Your task to perform on an android device: change keyboard looks Image 0: 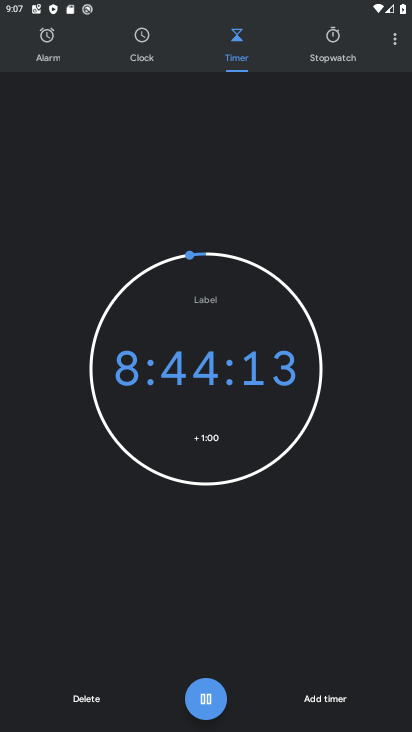
Step 0: press home button
Your task to perform on an android device: change keyboard looks Image 1: 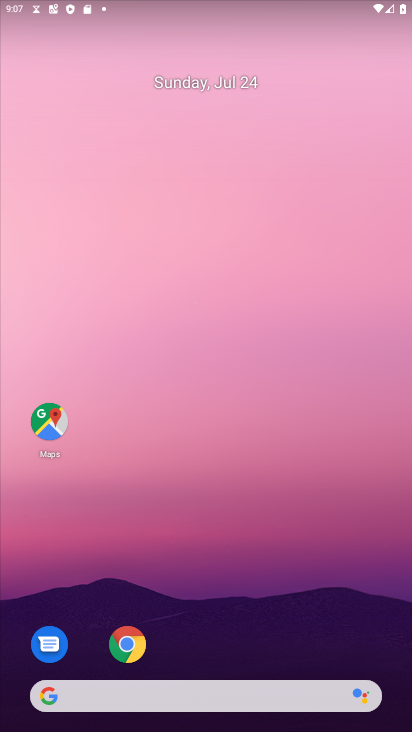
Step 1: drag from (222, 609) to (295, 80)
Your task to perform on an android device: change keyboard looks Image 2: 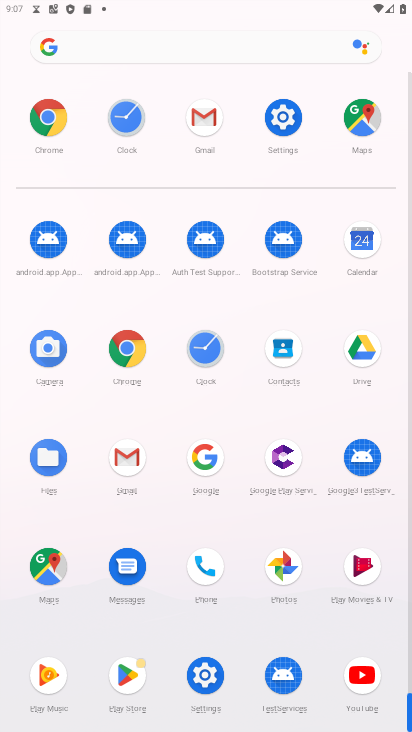
Step 2: click (284, 111)
Your task to perform on an android device: change keyboard looks Image 3: 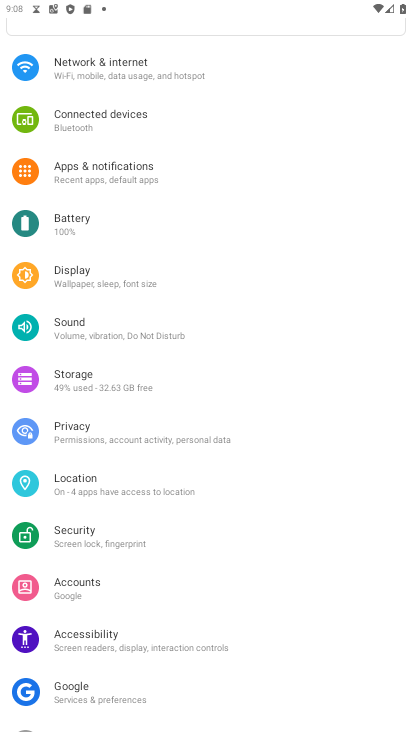
Step 3: drag from (174, 689) to (213, 71)
Your task to perform on an android device: change keyboard looks Image 4: 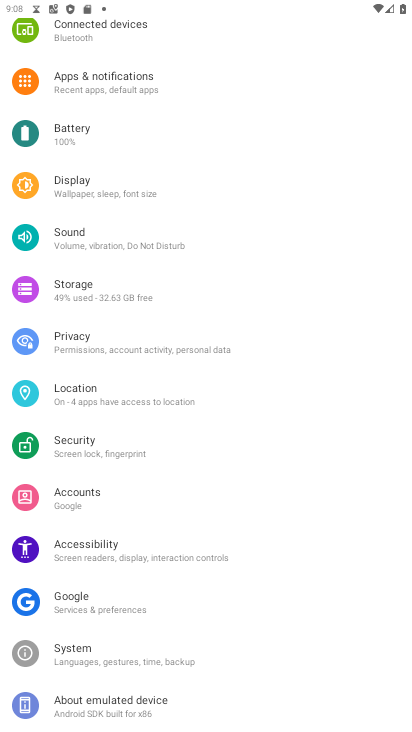
Step 4: click (56, 652)
Your task to perform on an android device: change keyboard looks Image 5: 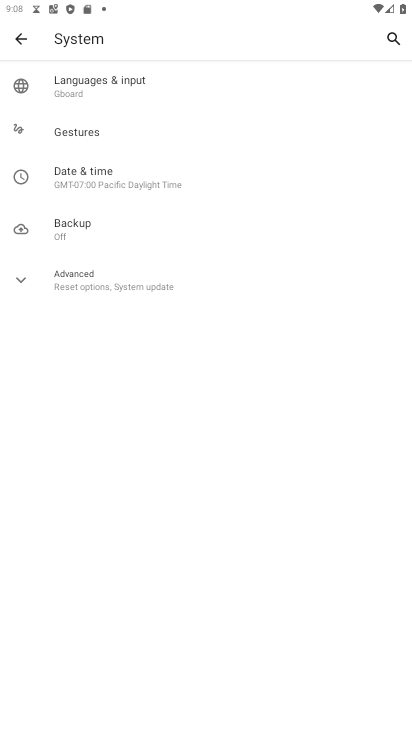
Step 5: click (74, 88)
Your task to perform on an android device: change keyboard looks Image 6: 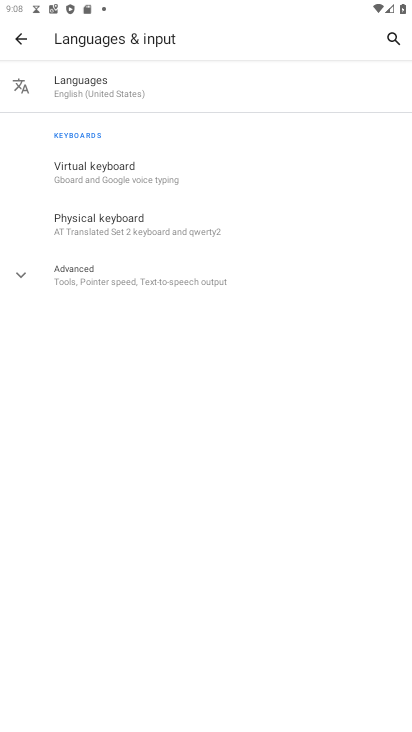
Step 6: click (124, 276)
Your task to perform on an android device: change keyboard looks Image 7: 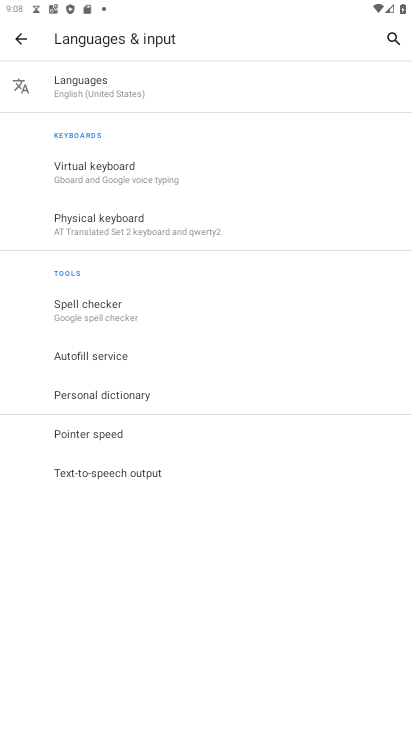
Step 7: click (92, 182)
Your task to perform on an android device: change keyboard looks Image 8: 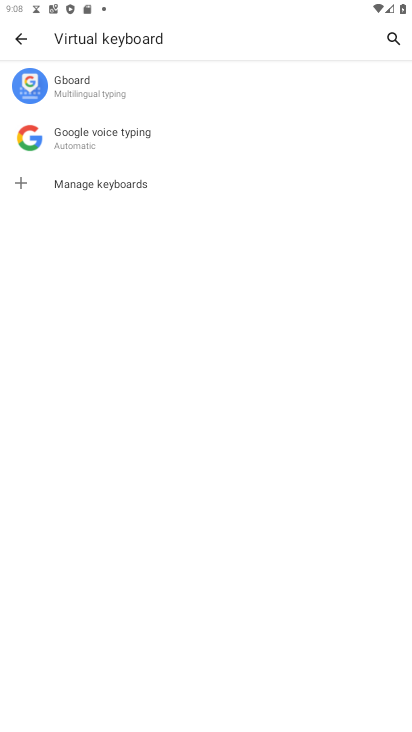
Step 8: click (70, 91)
Your task to perform on an android device: change keyboard looks Image 9: 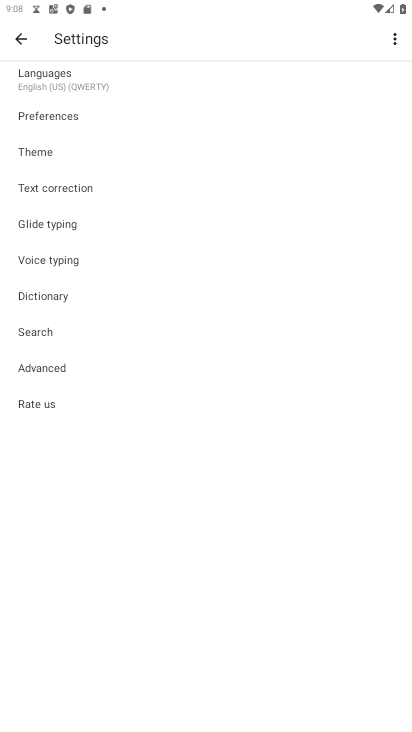
Step 9: click (56, 151)
Your task to perform on an android device: change keyboard looks Image 10: 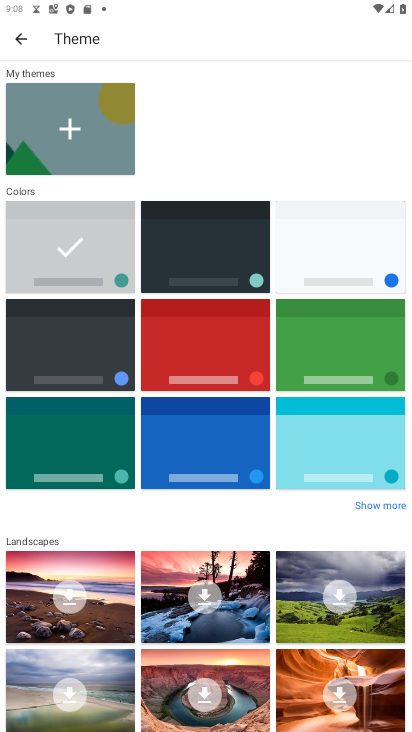
Step 10: click (188, 247)
Your task to perform on an android device: change keyboard looks Image 11: 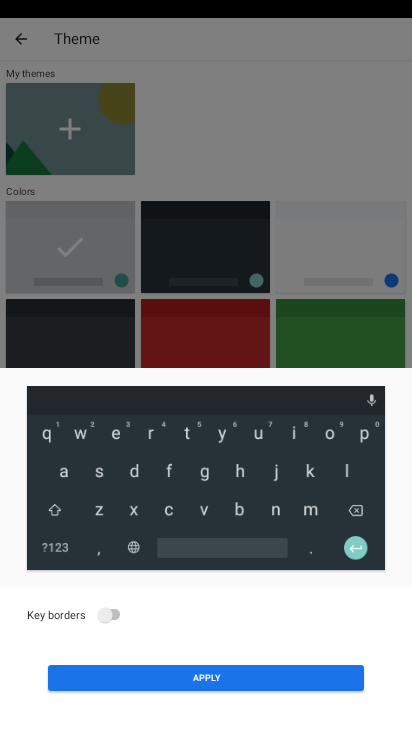
Step 11: click (285, 671)
Your task to perform on an android device: change keyboard looks Image 12: 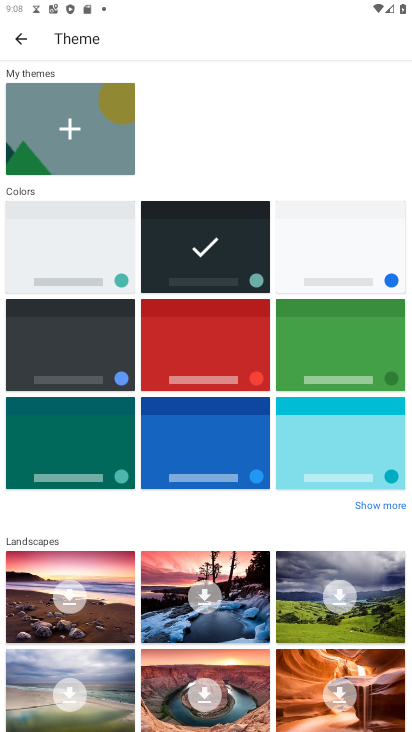
Step 12: task complete